Your task to perform on an android device: When is my next meeting? Image 0: 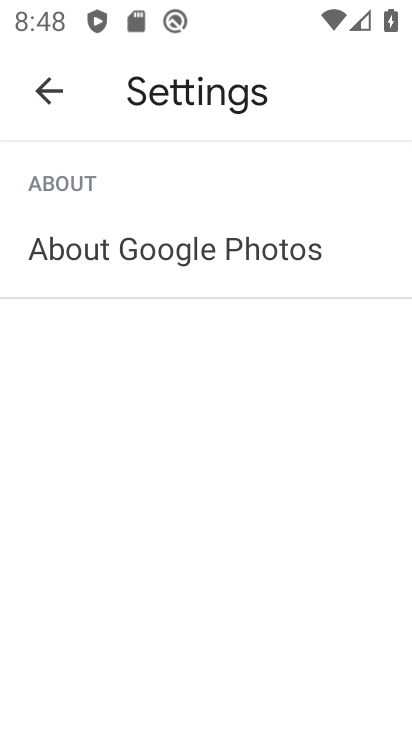
Step 0: drag from (339, 731) to (317, 101)
Your task to perform on an android device: When is my next meeting? Image 1: 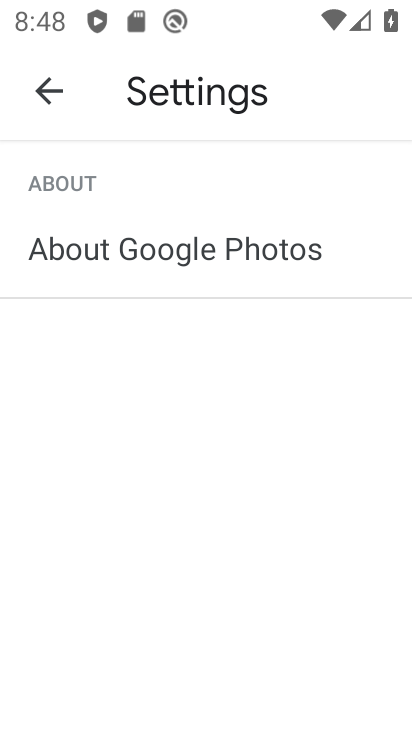
Step 1: click (53, 95)
Your task to perform on an android device: When is my next meeting? Image 2: 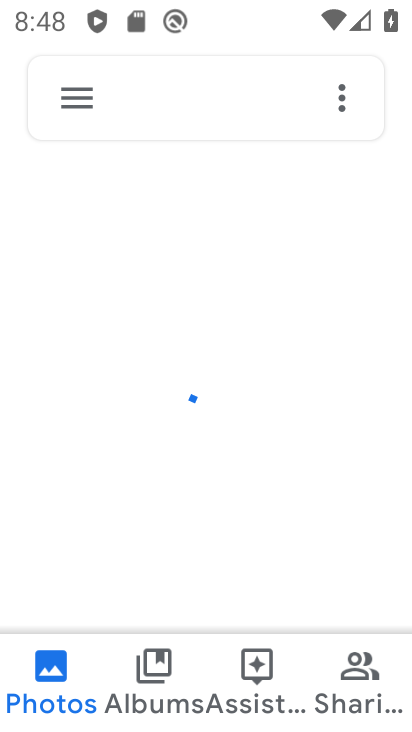
Step 2: press back button
Your task to perform on an android device: When is my next meeting? Image 3: 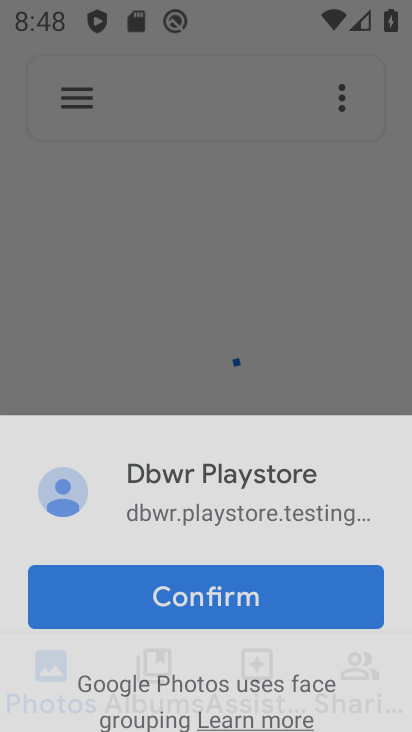
Step 3: press back button
Your task to perform on an android device: When is my next meeting? Image 4: 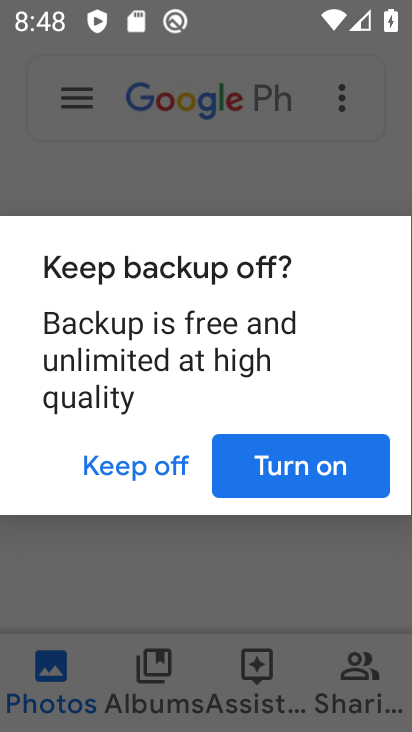
Step 4: press home button
Your task to perform on an android device: When is my next meeting? Image 5: 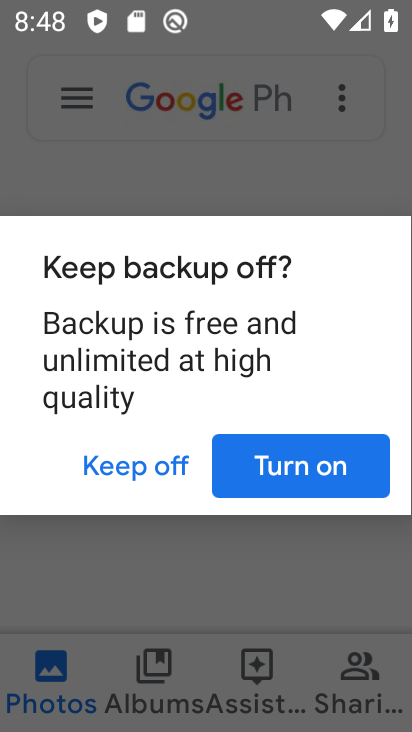
Step 5: press home button
Your task to perform on an android device: When is my next meeting? Image 6: 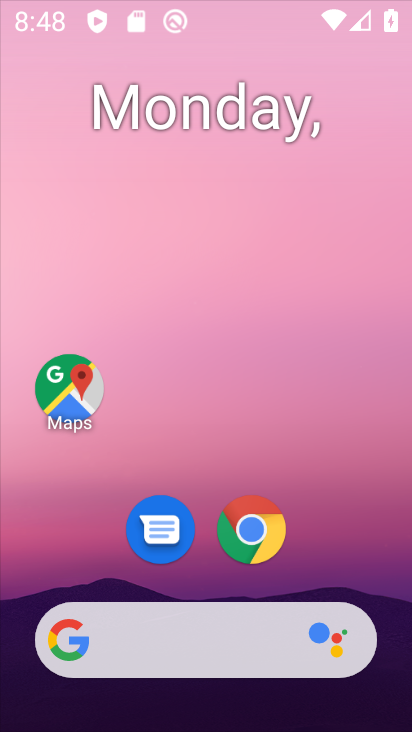
Step 6: press home button
Your task to perform on an android device: When is my next meeting? Image 7: 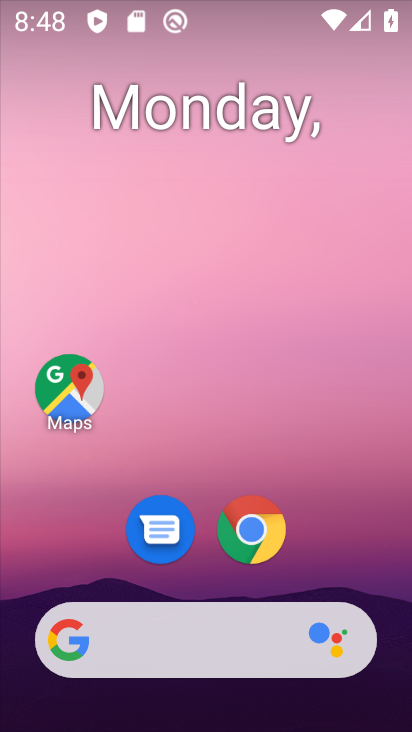
Step 7: drag from (299, 682) to (213, 245)
Your task to perform on an android device: When is my next meeting? Image 8: 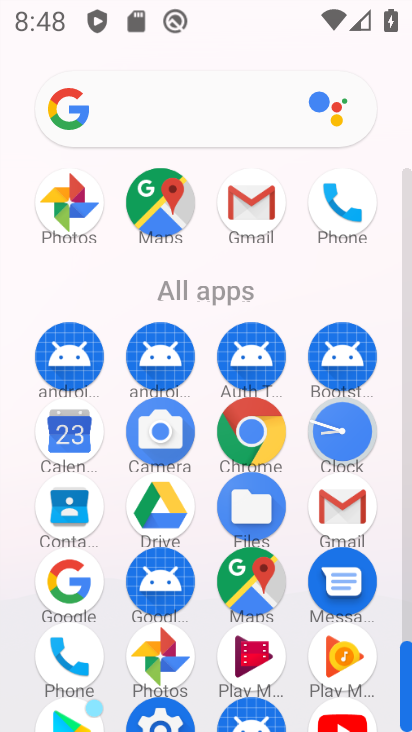
Step 8: click (66, 433)
Your task to perform on an android device: When is my next meeting? Image 9: 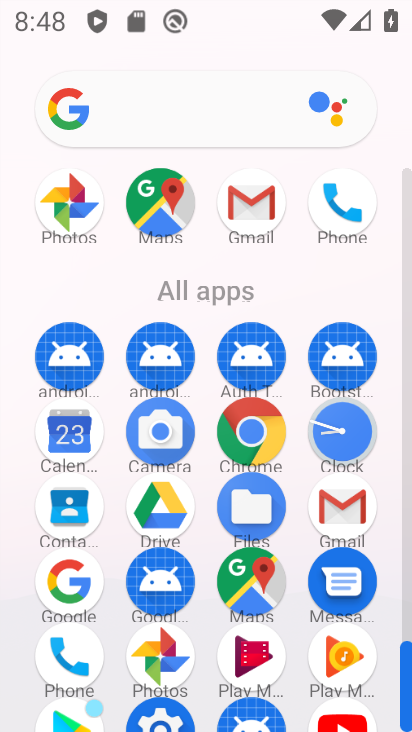
Step 9: click (66, 433)
Your task to perform on an android device: When is my next meeting? Image 10: 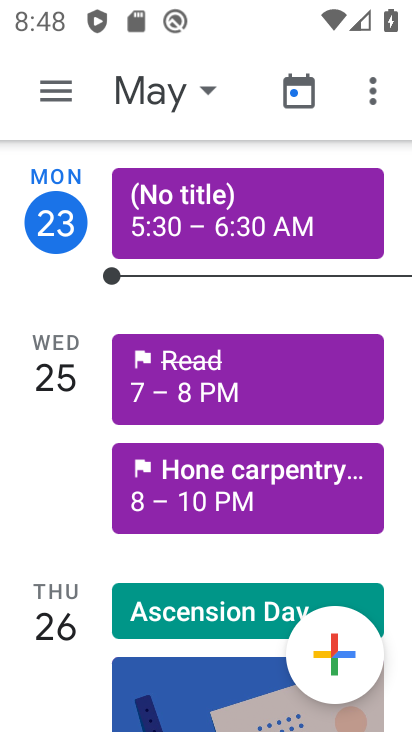
Step 10: drag from (213, 525) to (171, 111)
Your task to perform on an android device: When is my next meeting? Image 11: 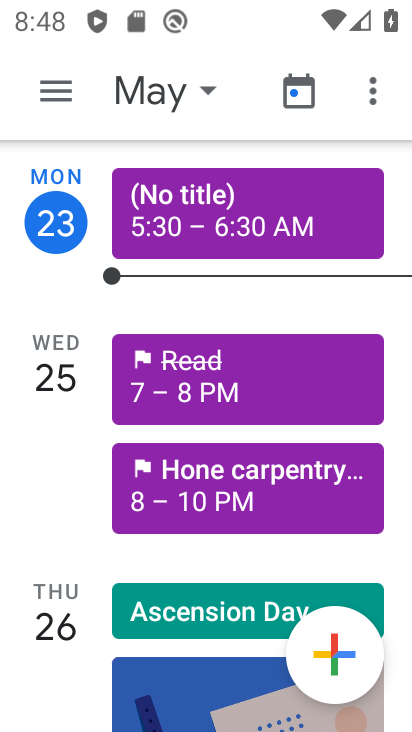
Step 11: drag from (202, 561) to (259, 124)
Your task to perform on an android device: When is my next meeting? Image 12: 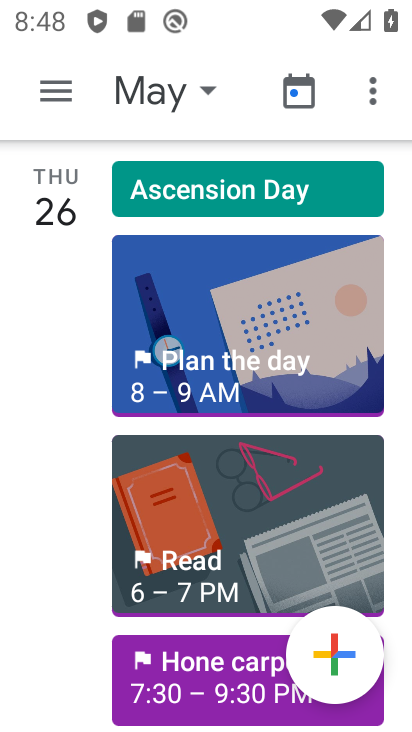
Step 12: drag from (232, 565) to (216, 222)
Your task to perform on an android device: When is my next meeting? Image 13: 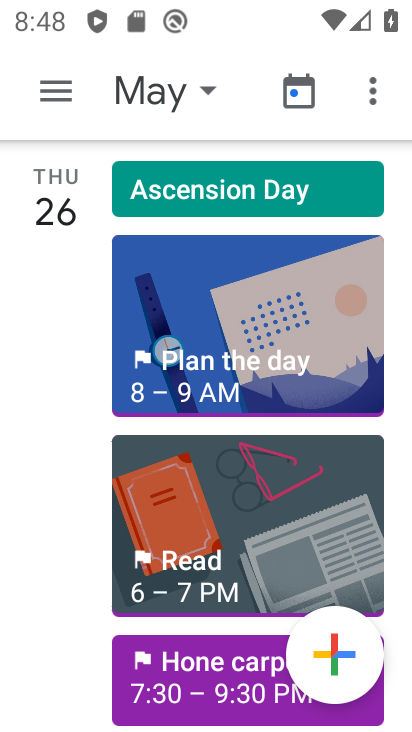
Step 13: drag from (230, 541) to (216, 171)
Your task to perform on an android device: When is my next meeting? Image 14: 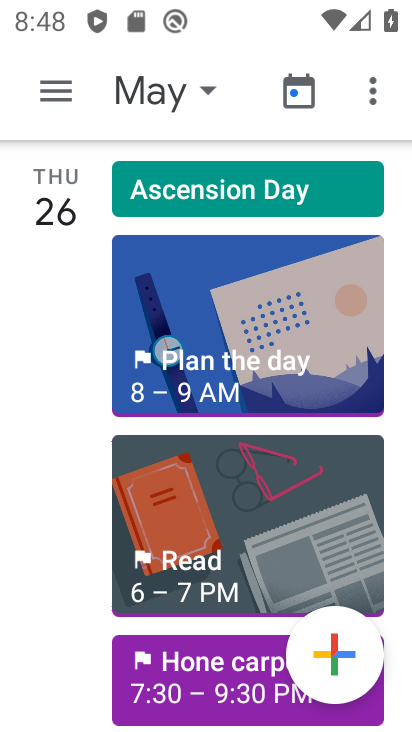
Step 14: drag from (207, 452) to (202, 37)
Your task to perform on an android device: When is my next meeting? Image 15: 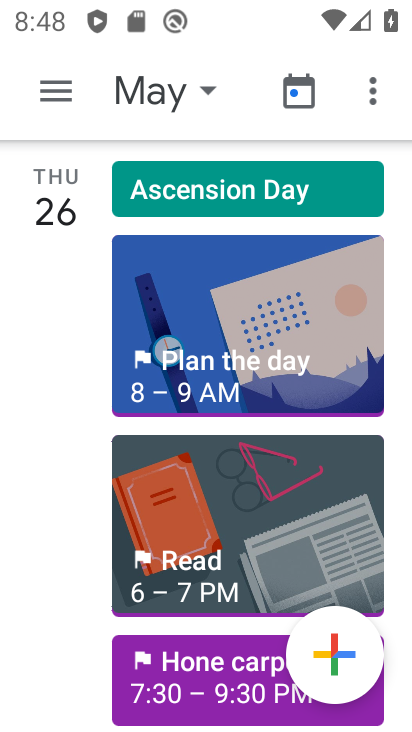
Step 15: drag from (232, 504) to (216, 143)
Your task to perform on an android device: When is my next meeting? Image 16: 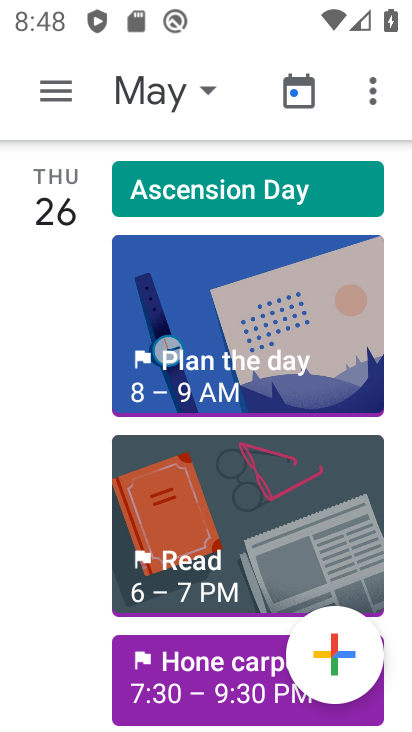
Step 16: drag from (248, 439) to (242, 224)
Your task to perform on an android device: When is my next meeting? Image 17: 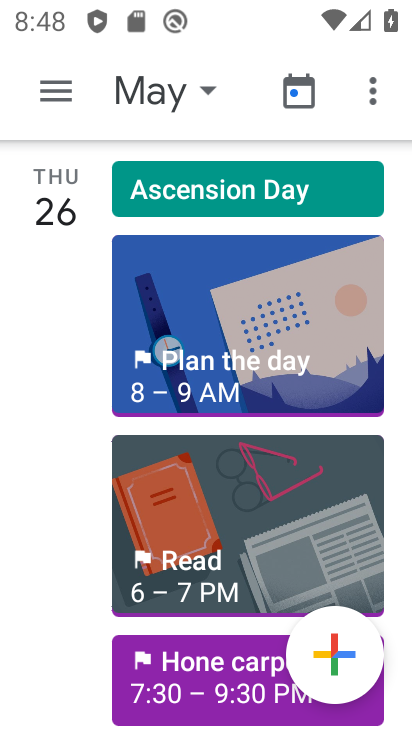
Step 17: drag from (260, 456) to (207, 116)
Your task to perform on an android device: When is my next meeting? Image 18: 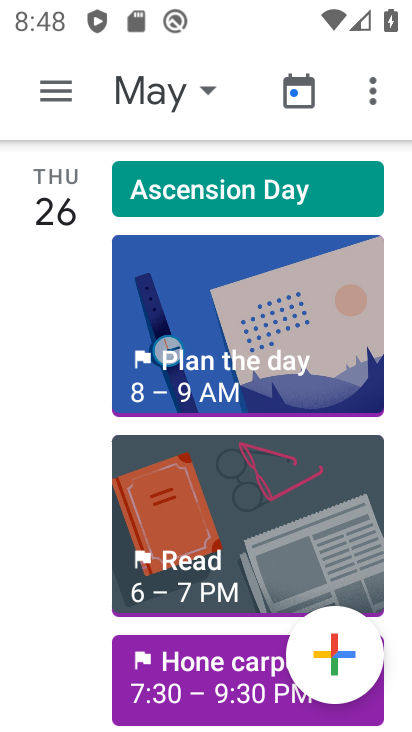
Step 18: drag from (187, 621) to (175, 177)
Your task to perform on an android device: When is my next meeting? Image 19: 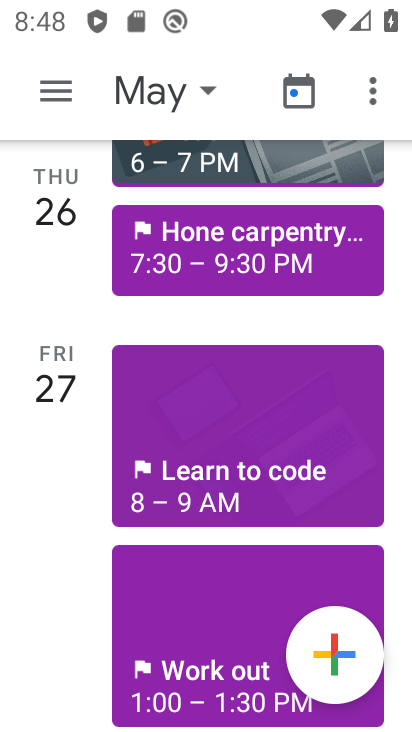
Step 19: drag from (192, 629) to (152, 278)
Your task to perform on an android device: When is my next meeting? Image 20: 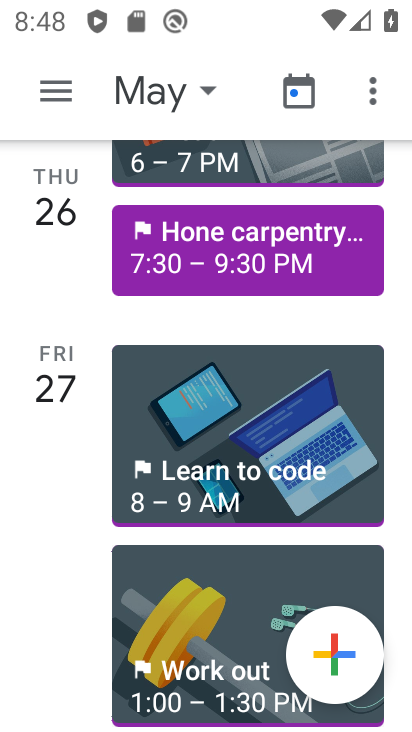
Step 20: drag from (178, 509) to (171, 83)
Your task to perform on an android device: When is my next meeting? Image 21: 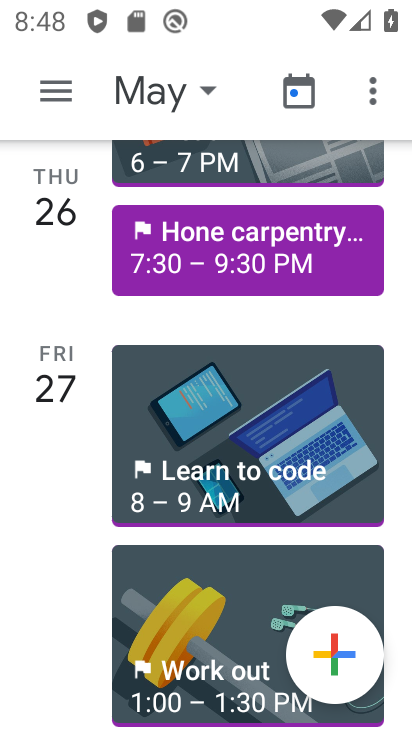
Step 21: drag from (213, 560) to (217, 224)
Your task to perform on an android device: When is my next meeting? Image 22: 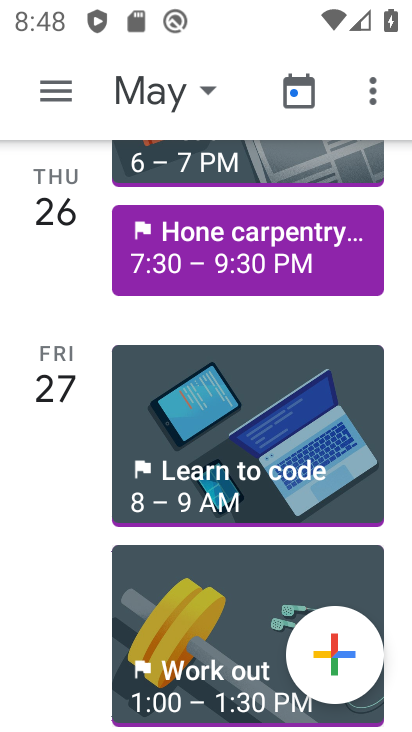
Step 22: drag from (246, 511) to (194, 164)
Your task to perform on an android device: When is my next meeting? Image 23: 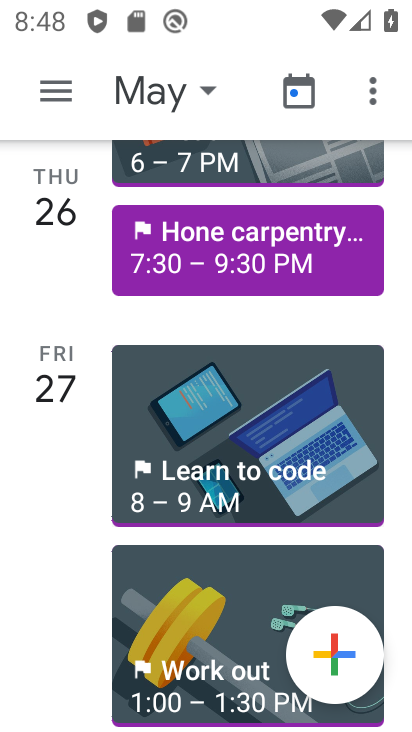
Step 23: drag from (199, 613) to (160, 193)
Your task to perform on an android device: When is my next meeting? Image 24: 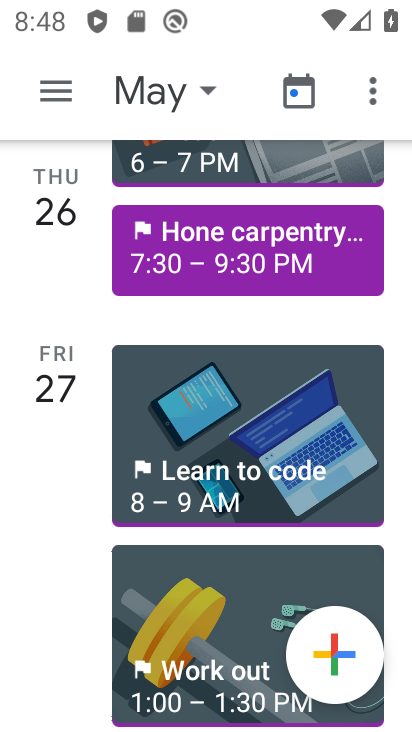
Step 24: drag from (188, 588) to (181, 52)
Your task to perform on an android device: When is my next meeting? Image 25: 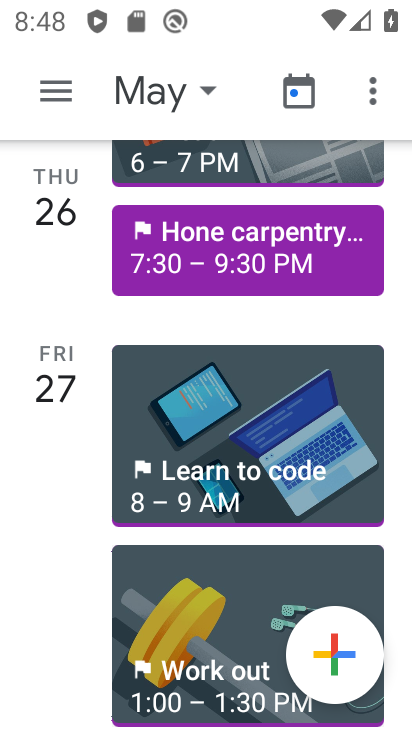
Step 25: drag from (212, 543) to (212, 160)
Your task to perform on an android device: When is my next meeting? Image 26: 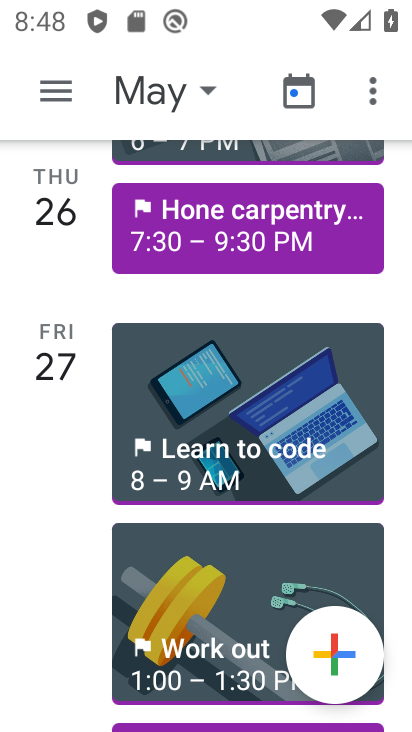
Step 26: drag from (264, 472) to (267, 173)
Your task to perform on an android device: When is my next meeting? Image 27: 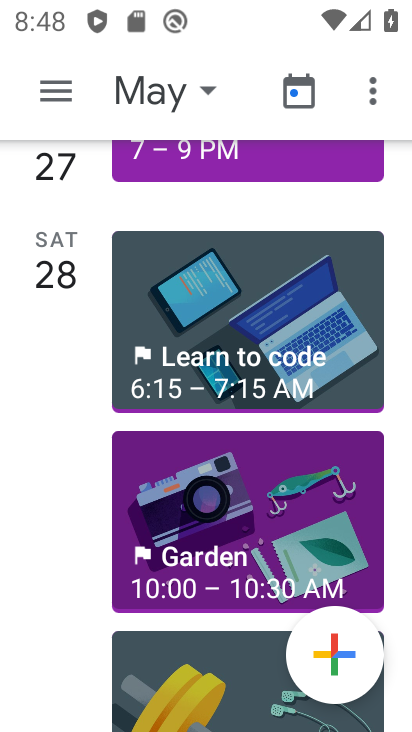
Step 27: drag from (288, 615) to (277, 238)
Your task to perform on an android device: When is my next meeting? Image 28: 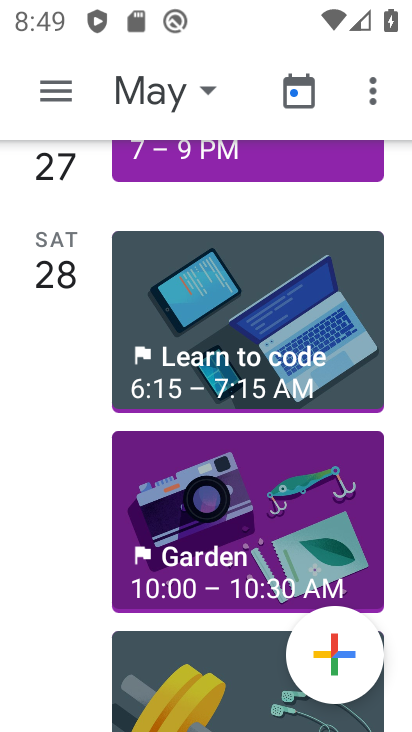
Step 28: drag from (270, 562) to (255, 194)
Your task to perform on an android device: When is my next meeting? Image 29: 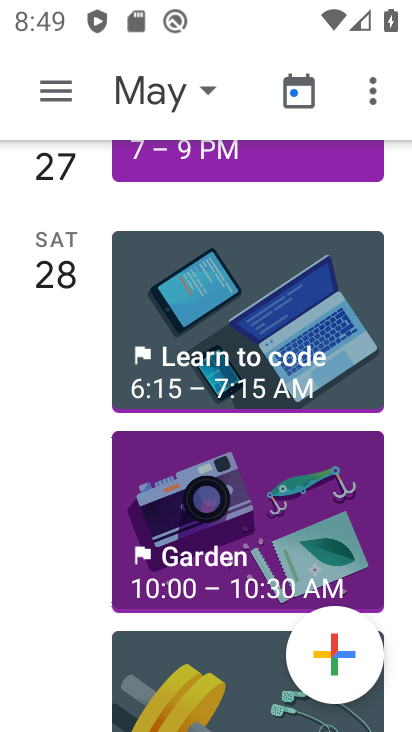
Step 29: drag from (252, 558) to (185, 166)
Your task to perform on an android device: When is my next meeting? Image 30: 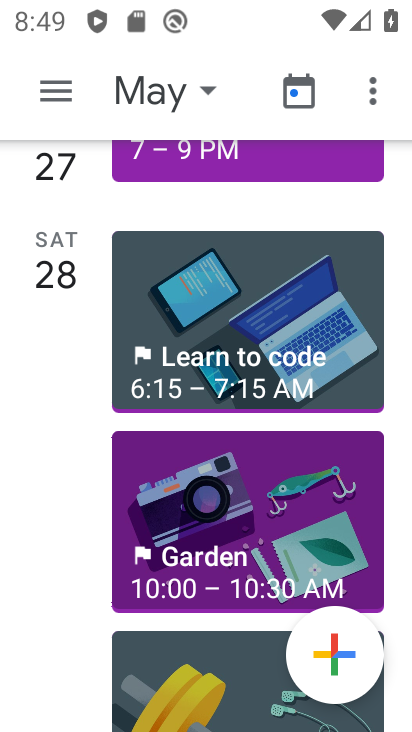
Step 30: drag from (184, 684) to (212, 272)
Your task to perform on an android device: When is my next meeting? Image 31: 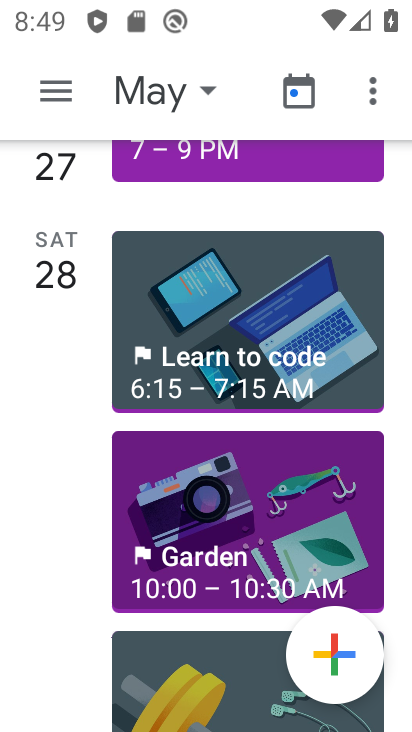
Step 31: drag from (229, 656) to (229, 330)
Your task to perform on an android device: When is my next meeting? Image 32: 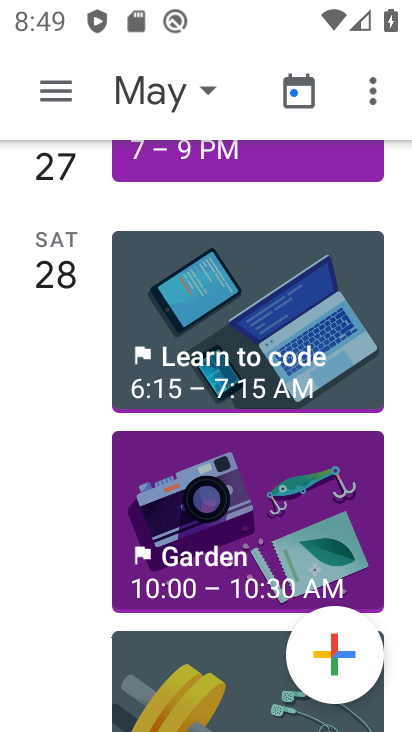
Step 32: drag from (265, 613) to (262, 281)
Your task to perform on an android device: When is my next meeting? Image 33: 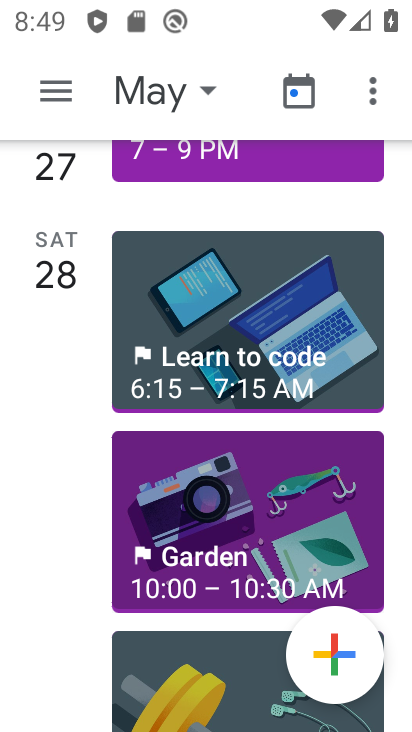
Step 33: drag from (278, 579) to (278, 239)
Your task to perform on an android device: When is my next meeting? Image 34: 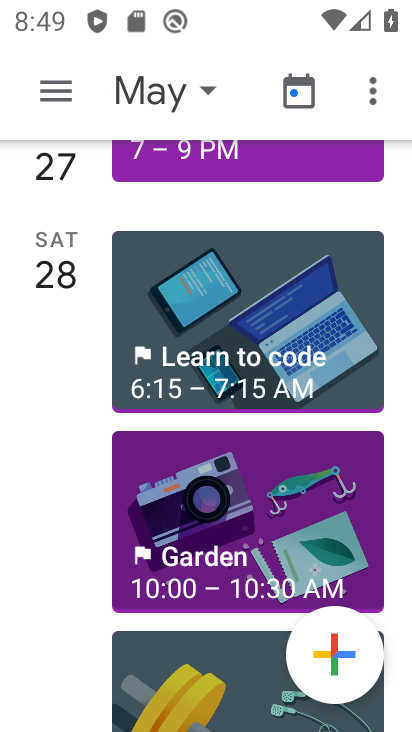
Step 34: drag from (225, 584) to (180, 248)
Your task to perform on an android device: When is my next meeting? Image 35: 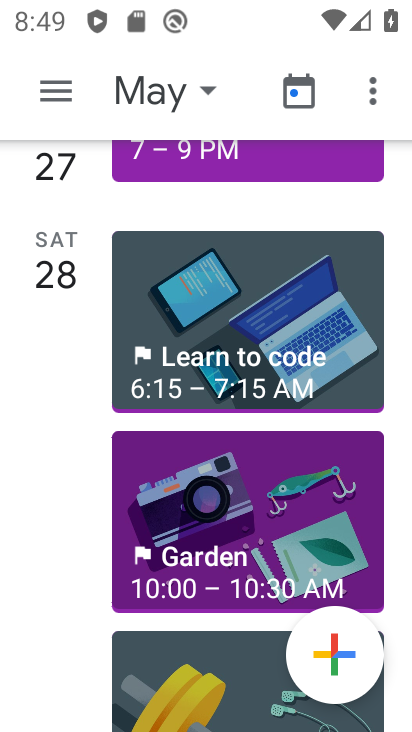
Step 35: drag from (199, 356) to (221, 286)
Your task to perform on an android device: When is my next meeting? Image 36: 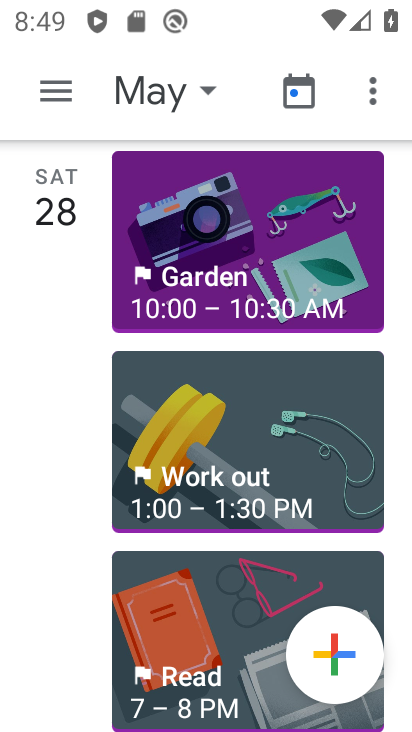
Step 36: drag from (208, 646) to (231, 283)
Your task to perform on an android device: When is my next meeting? Image 37: 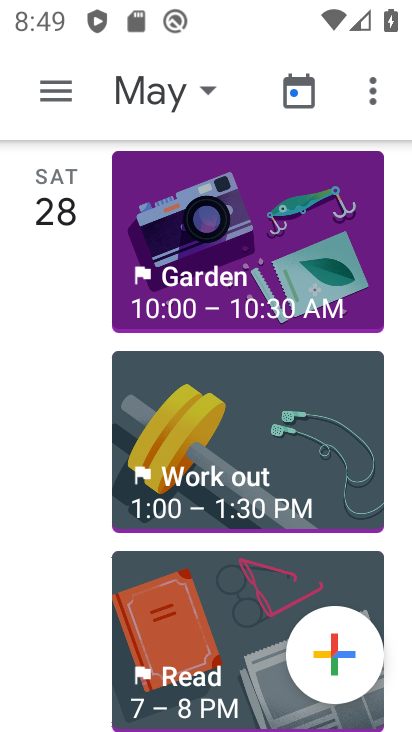
Step 37: drag from (240, 602) to (263, 287)
Your task to perform on an android device: When is my next meeting? Image 38: 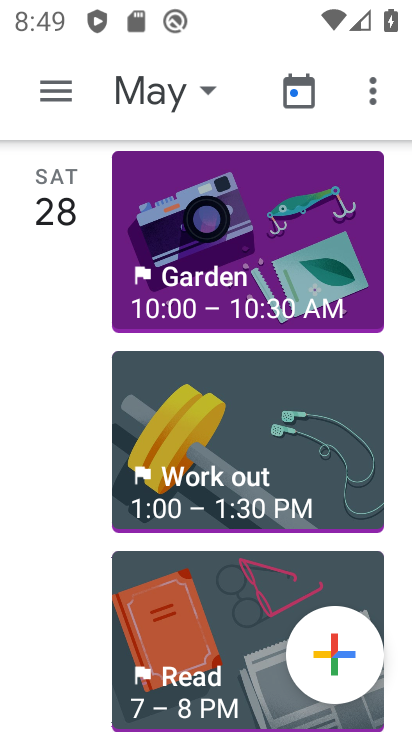
Step 38: drag from (259, 659) to (257, 218)
Your task to perform on an android device: When is my next meeting? Image 39: 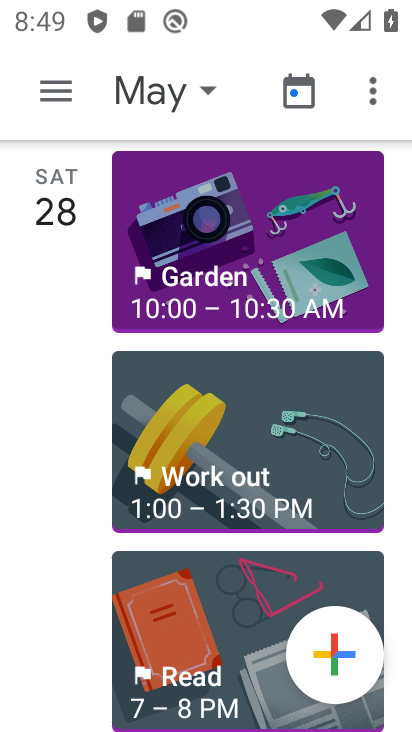
Step 39: drag from (272, 625) to (286, 337)
Your task to perform on an android device: When is my next meeting? Image 40: 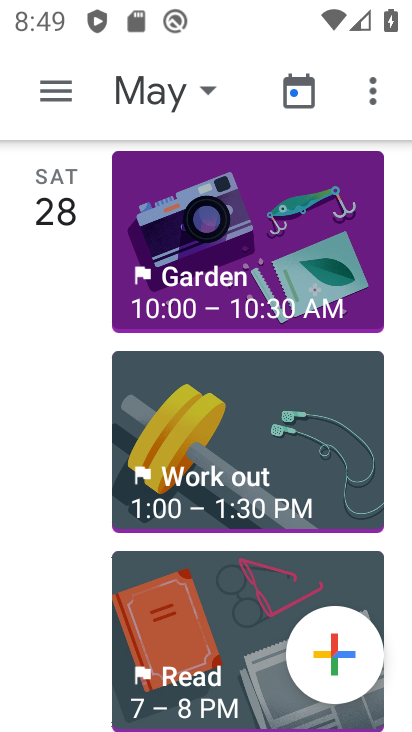
Step 40: drag from (250, 588) to (244, 149)
Your task to perform on an android device: When is my next meeting? Image 41: 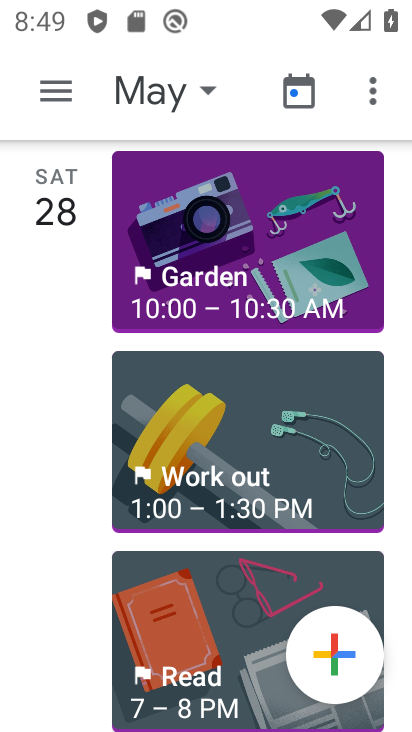
Step 41: drag from (220, 471) to (240, 155)
Your task to perform on an android device: When is my next meeting? Image 42: 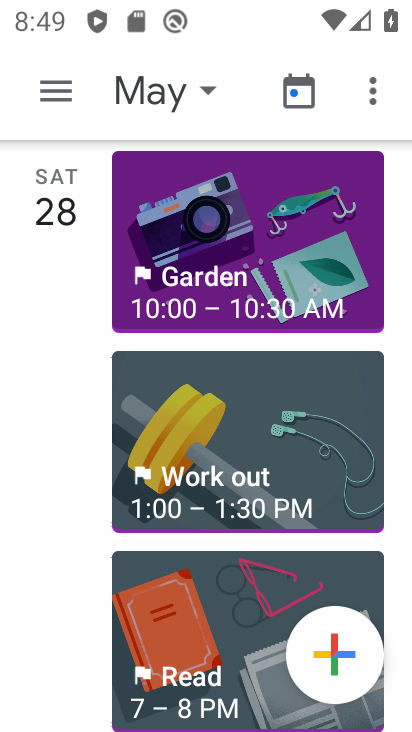
Step 42: drag from (268, 506) to (283, 215)
Your task to perform on an android device: When is my next meeting? Image 43: 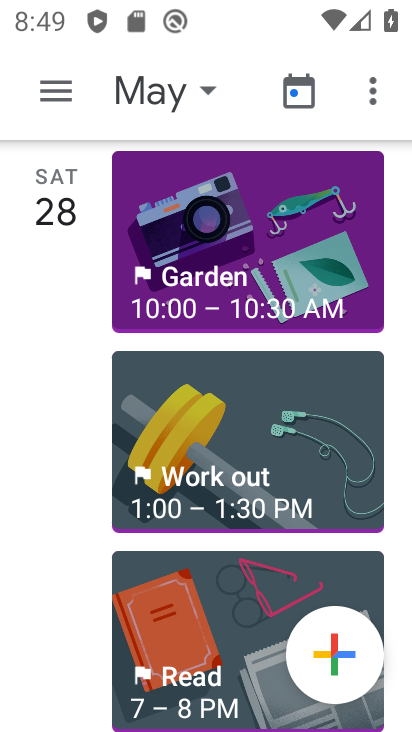
Step 43: click (285, 0)
Your task to perform on an android device: When is my next meeting? Image 44: 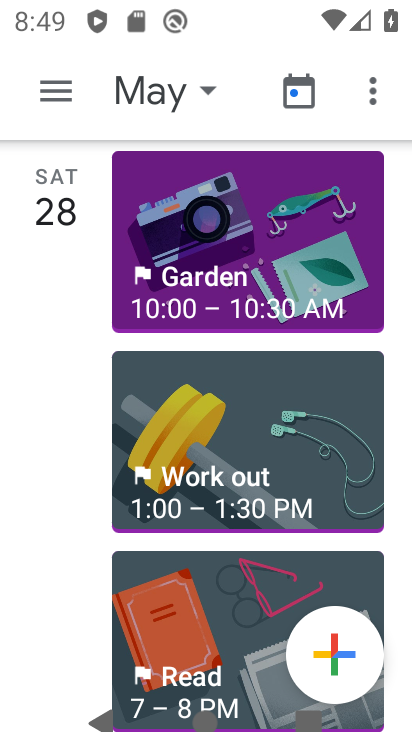
Step 44: task complete